Your task to perform on an android device: Add razer blade to the cart on newegg Image 0: 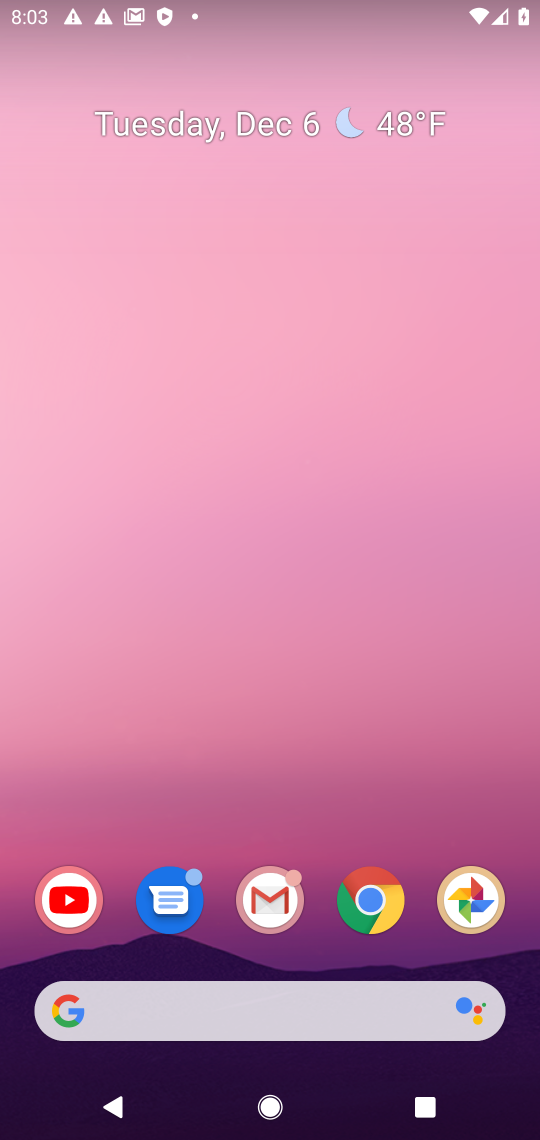
Step 0: drag from (246, 436) to (258, 207)
Your task to perform on an android device: Add razer blade to the cart on newegg Image 1: 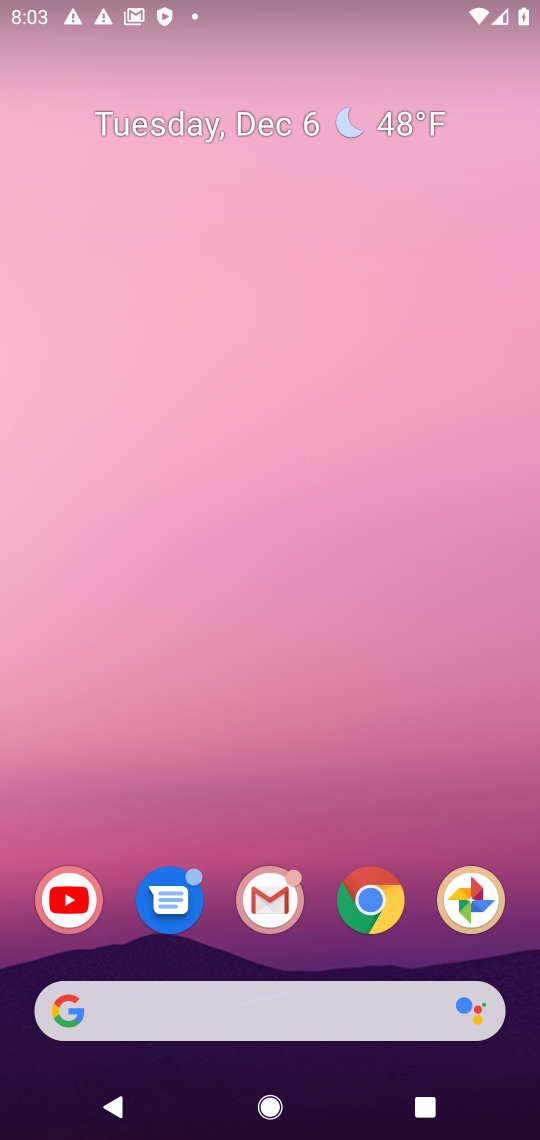
Step 1: drag from (242, 1004) to (302, 183)
Your task to perform on an android device: Add razer blade to the cart on newegg Image 2: 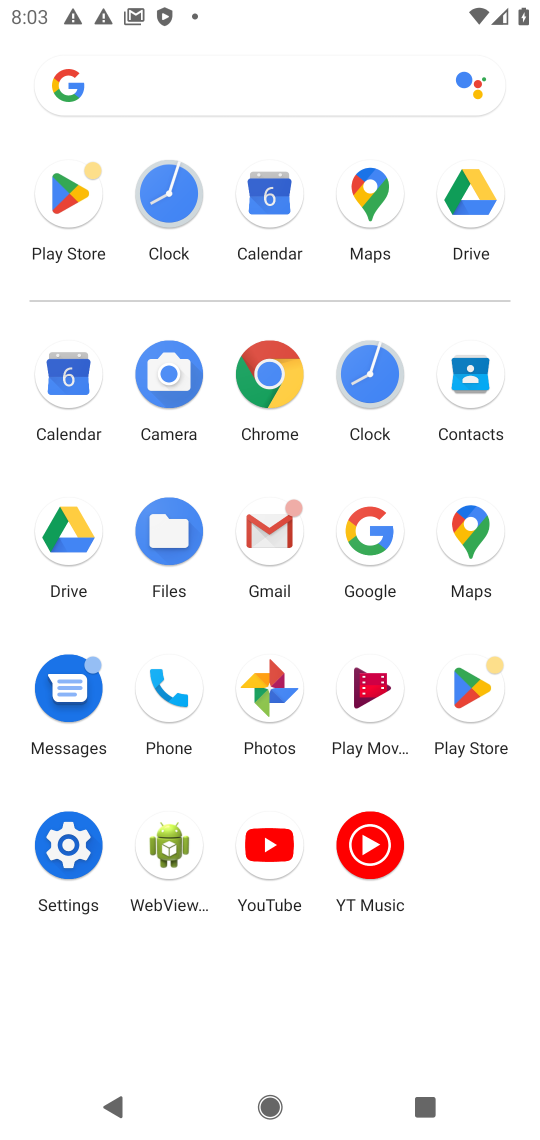
Step 2: click (362, 548)
Your task to perform on an android device: Add razer blade to the cart on newegg Image 3: 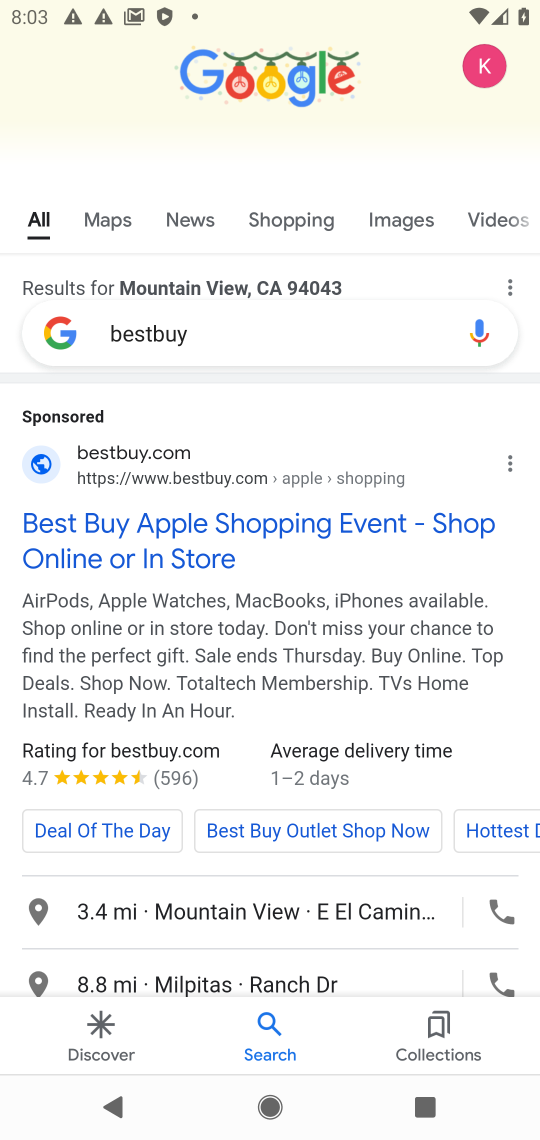
Step 3: click (180, 321)
Your task to perform on an android device: Add razer blade to the cart on newegg Image 4: 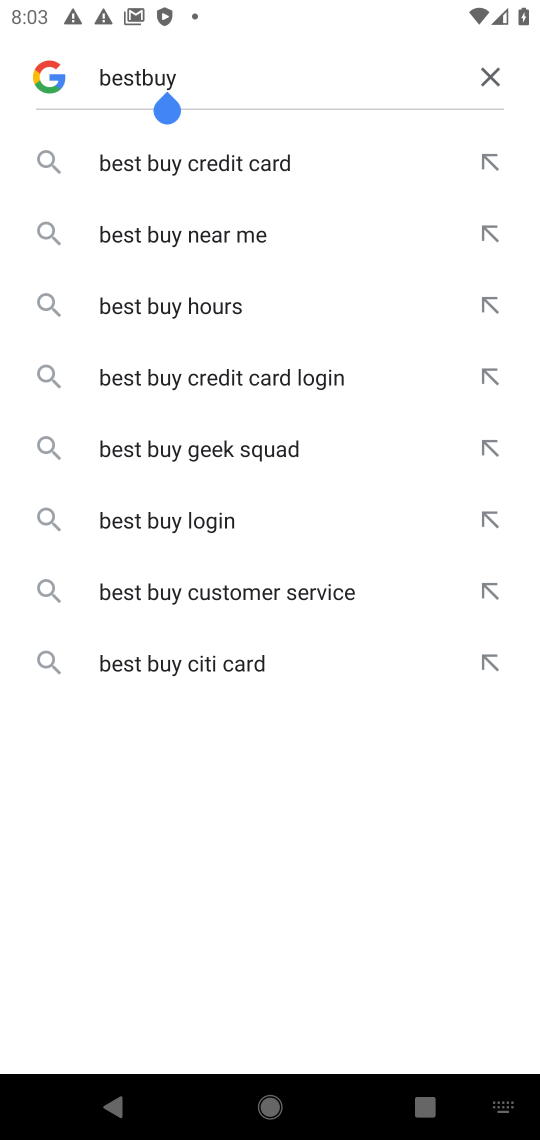
Step 4: click (492, 75)
Your task to perform on an android device: Add razer blade to the cart on newegg Image 5: 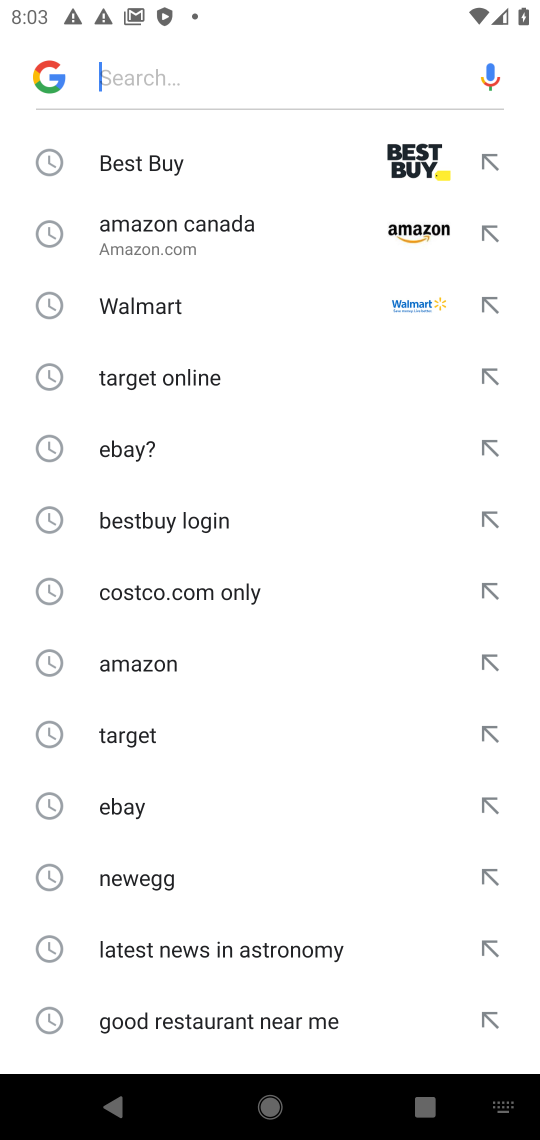
Step 5: click (493, 879)
Your task to perform on an android device: Add razer blade to the cart on newegg Image 6: 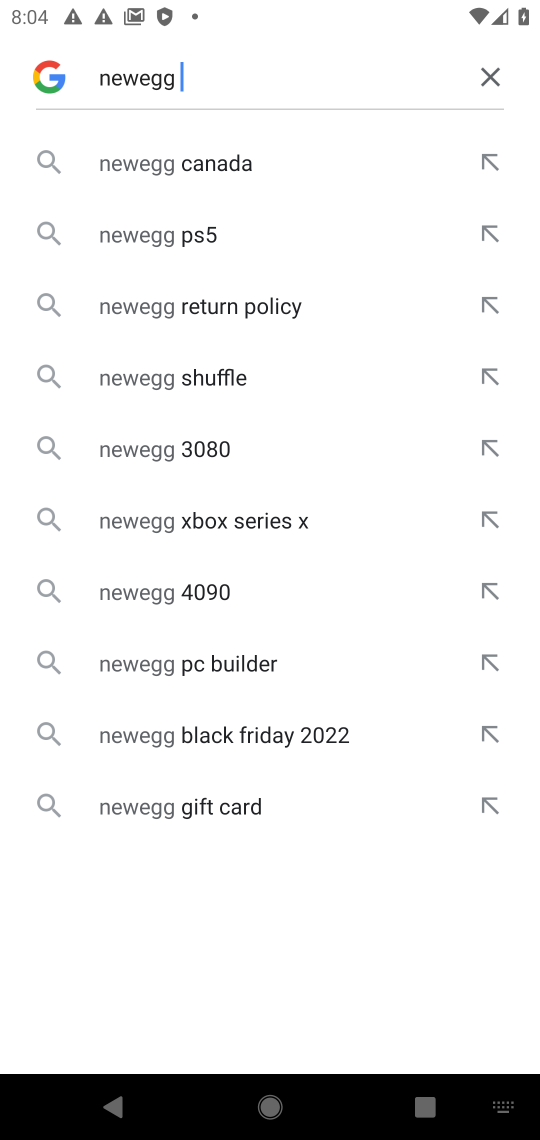
Step 6: click (141, 67)
Your task to perform on an android device: Add razer blade to the cart on newegg Image 7: 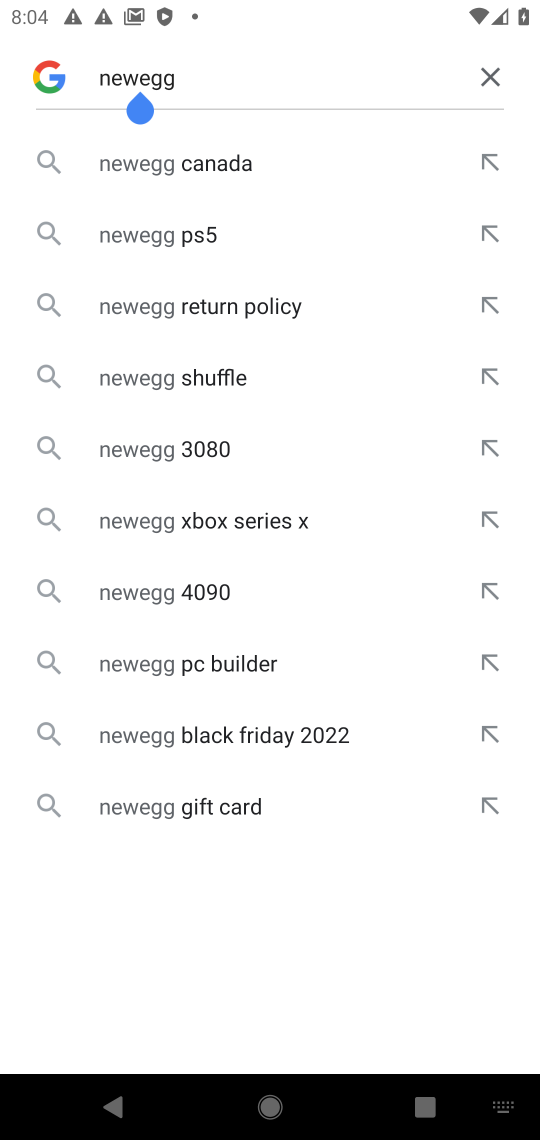
Step 7: click (488, 80)
Your task to perform on an android device: Add razer blade to the cart on newegg Image 8: 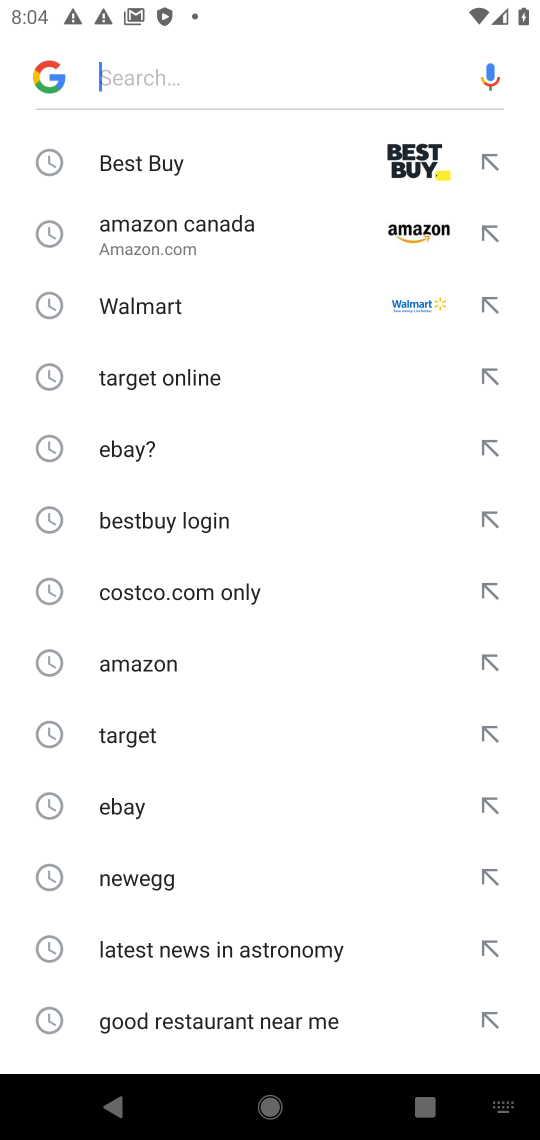
Step 8: click (131, 877)
Your task to perform on an android device: Add razer blade to the cart on newegg Image 9: 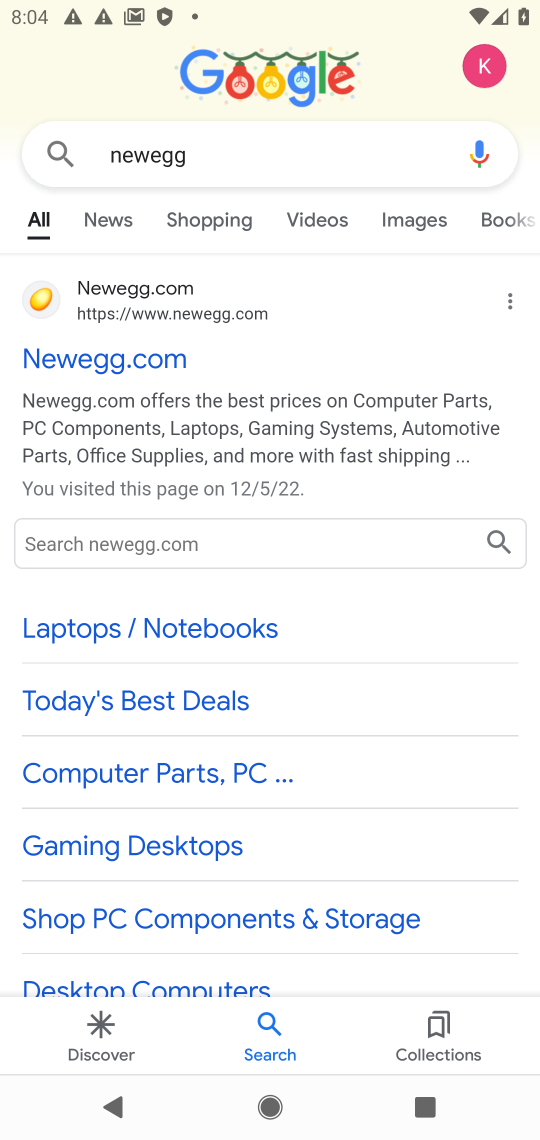
Step 9: click (117, 366)
Your task to perform on an android device: Add razer blade to the cart on newegg Image 10: 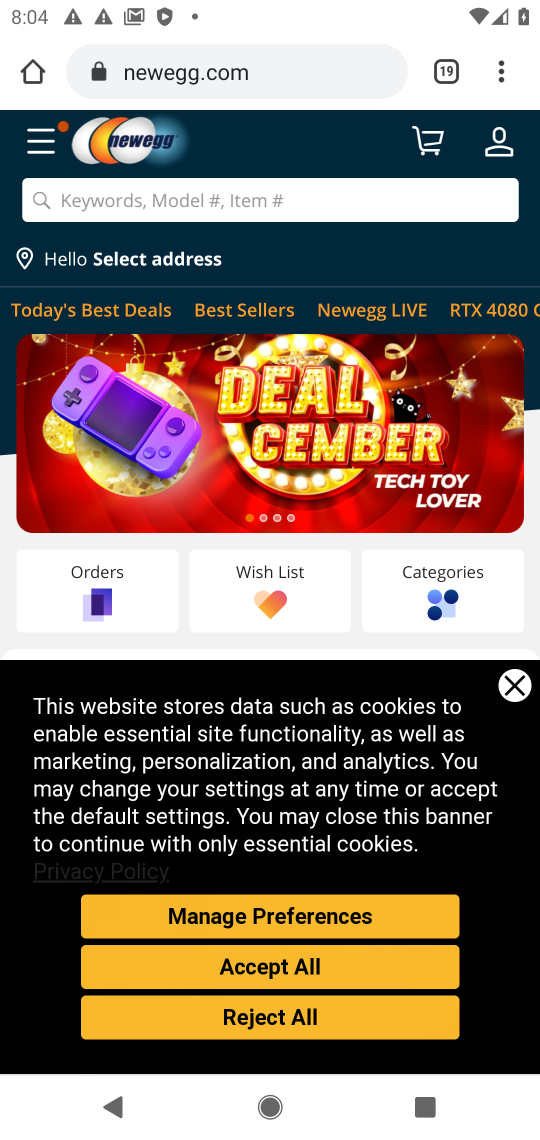
Step 10: click (179, 199)
Your task to perform on an android device: Add razer blade to the cart on newegg Image 11: 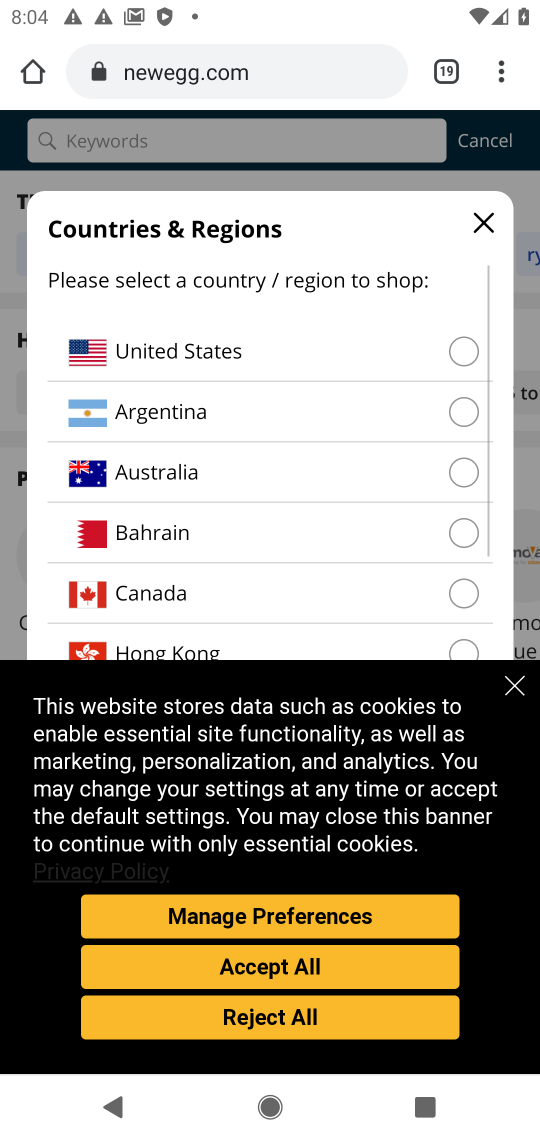
Step 11: click (476, 217)
Your task to perform on an android device: Add razer blade to the cart on newegg Image 12: 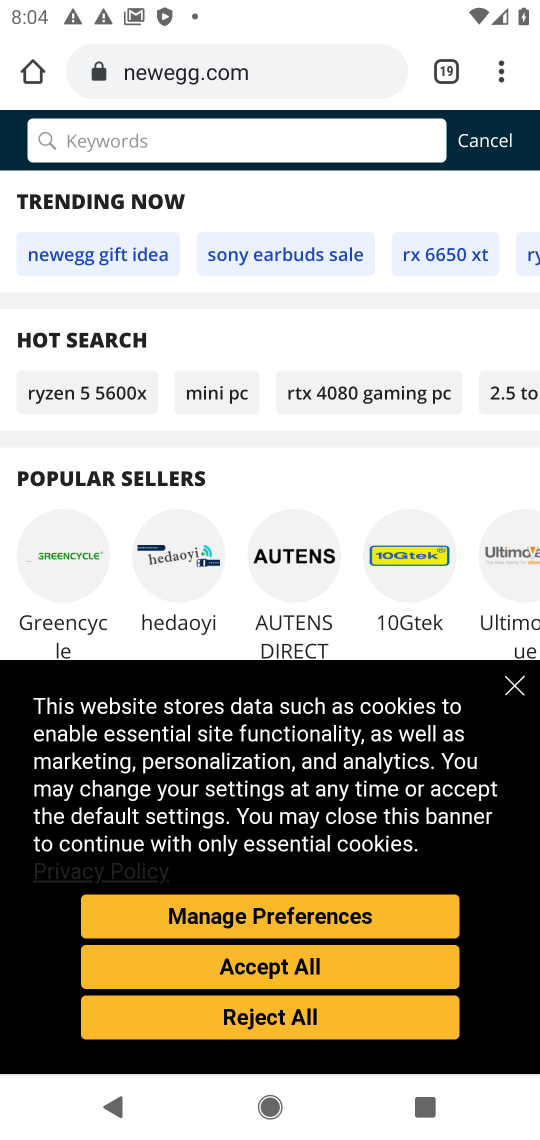
Step 12: type "razer blade"
Your task to perform on an android device: Add razer blade to the cart on newegg Image 13: 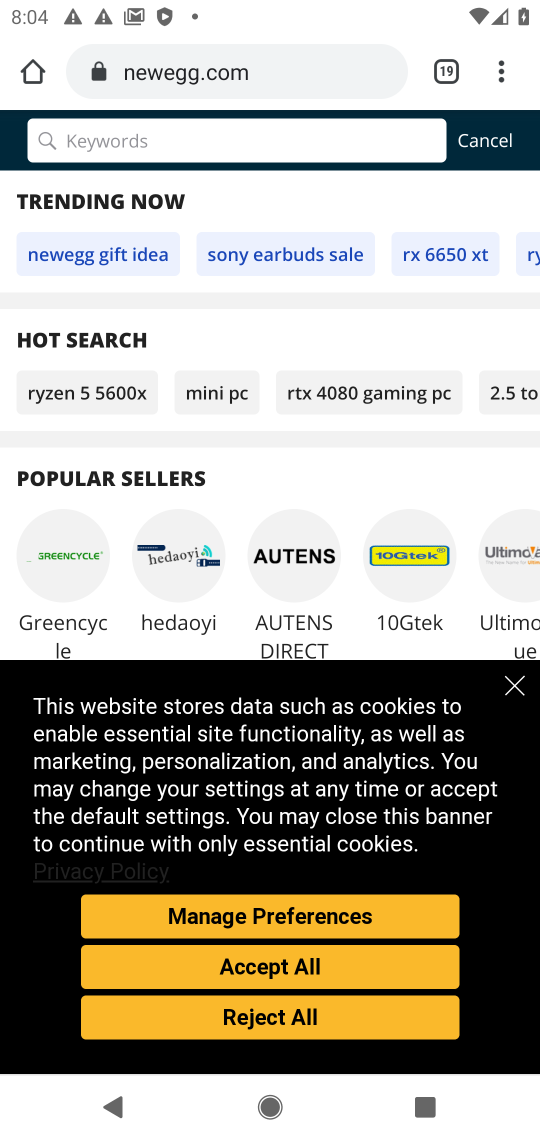
Step 13: click (108, 143)
Your task to perform on an android device: Add razer blade to the cart on newegg Image 14: 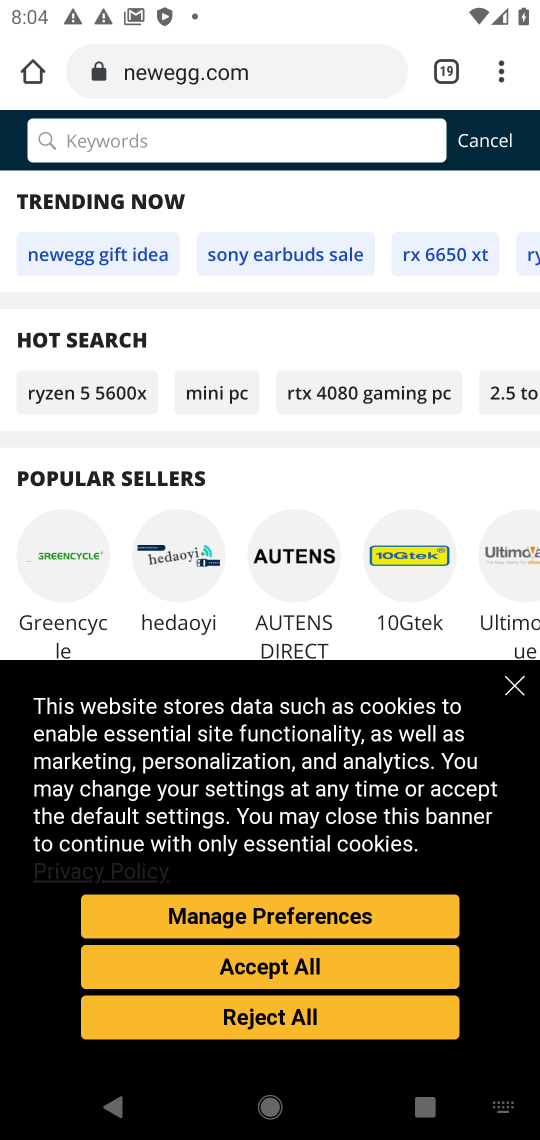
Step 14: type "razer blade"
Your task to perform on an android device: Add razer blade to the cart on newegg Image 15: 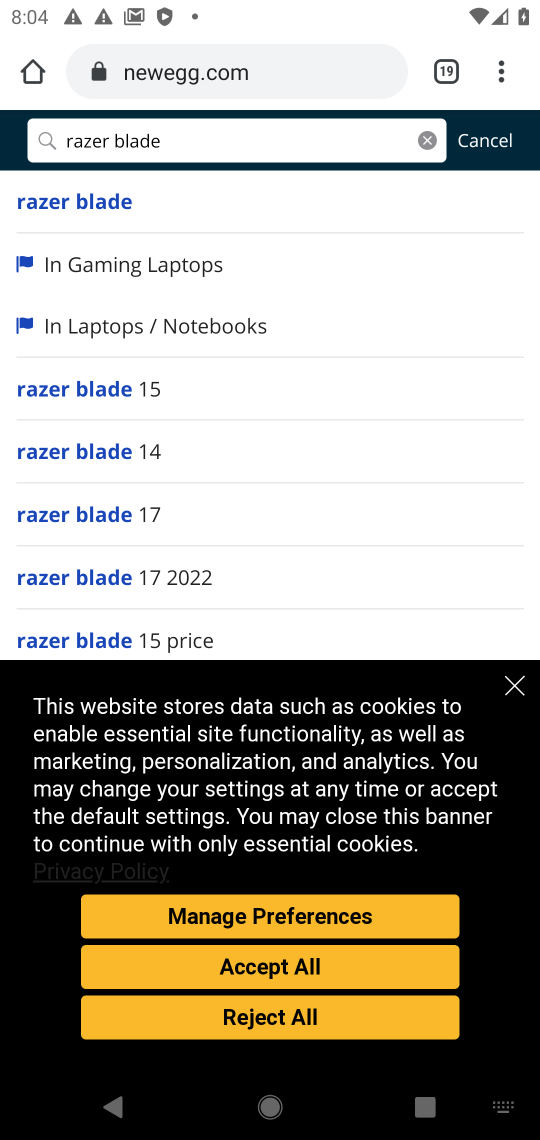
Step 15: click (86, 200)
Your task to perform on an android device: Add razer blade to the cart on newegg Image 16: 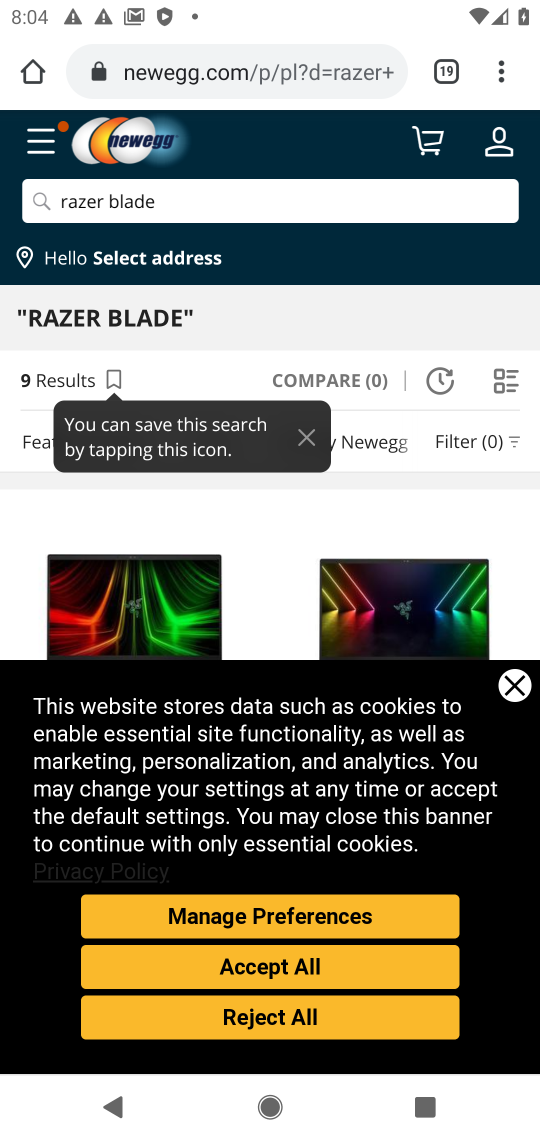
Step 16: click (517, 685)
Your task to perform on an android device: Add razer blade to the cart on newegg Image 17: 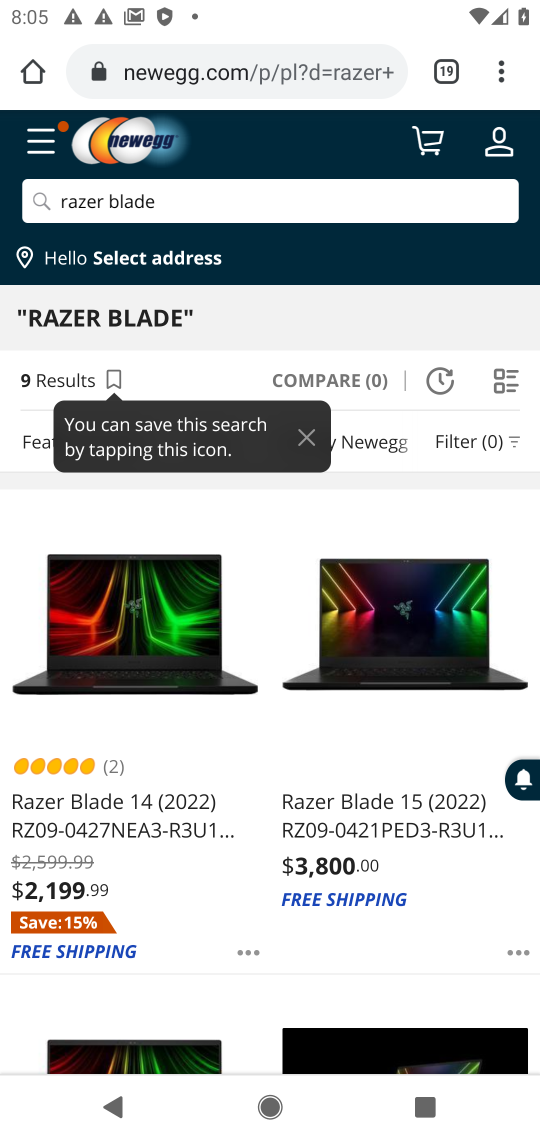
Step 17: click (104, 825)
Your task to perform on an android device: Add razer blade to the cart on newegg Image 18: 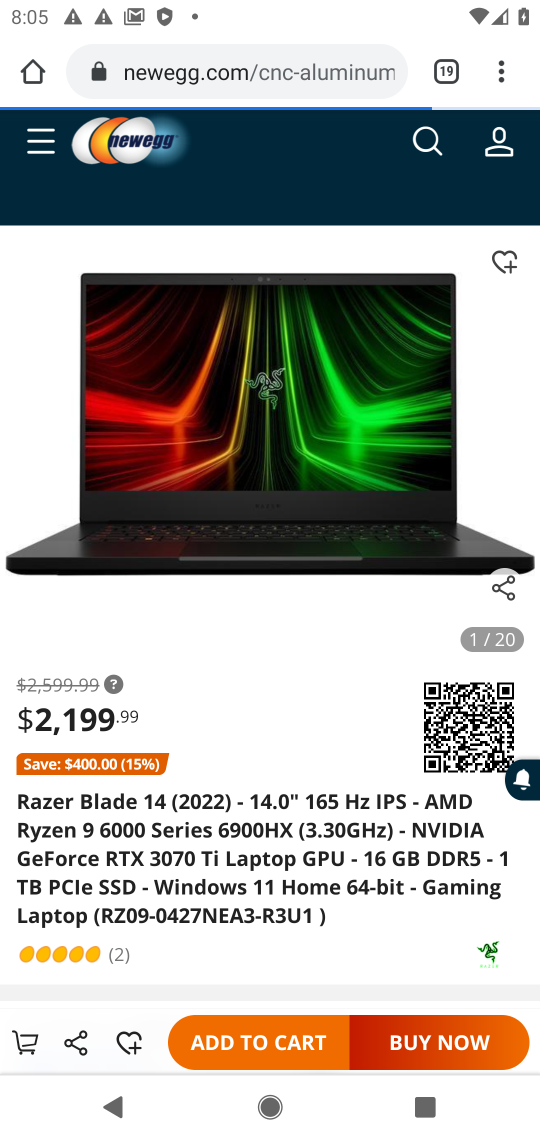
Step 18: click (247, 1040)
Your task to perform on an android device: Add razer blade to the cart on newegg Image 19: 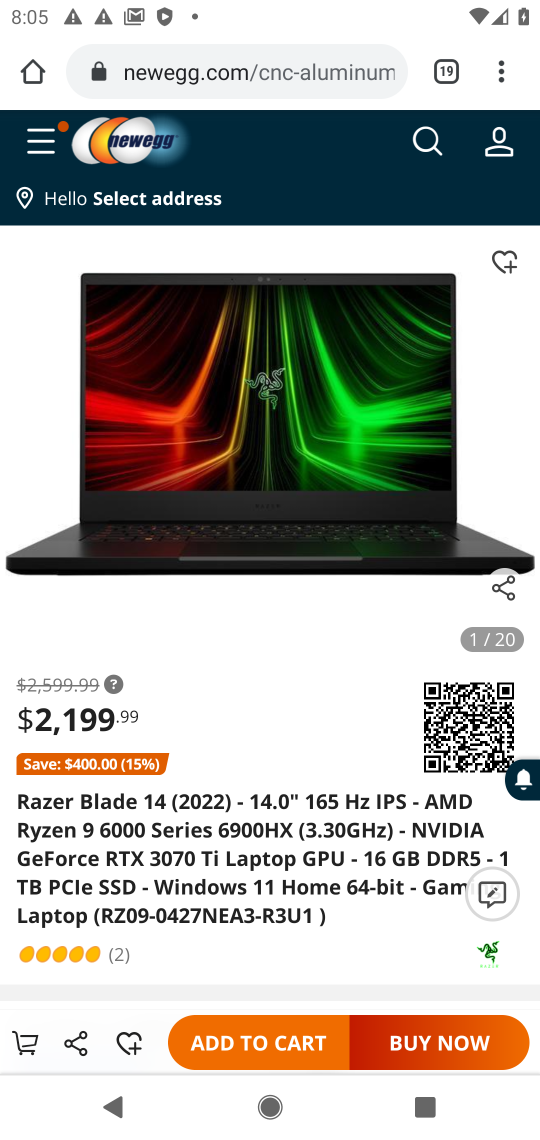
Step 19: drag from (208, 490) to (208, 854)
Your task to perform on an android device: Add razer blade to the cart on newegg Image 20: 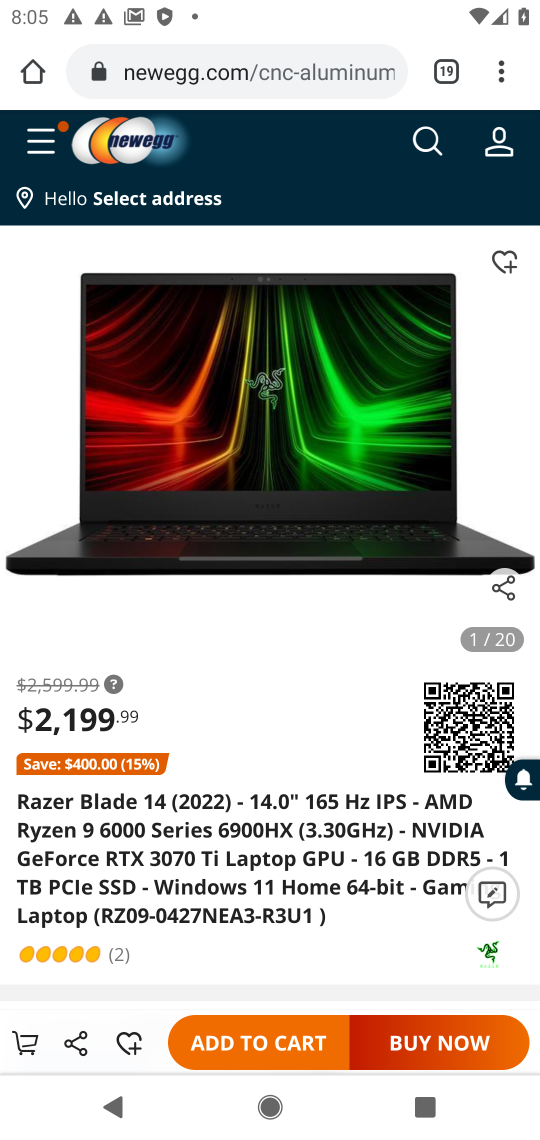
Step 20: click (223, 1034)
Your task to perform on an android device: Add razer blade to the cart on newegg Image 21: 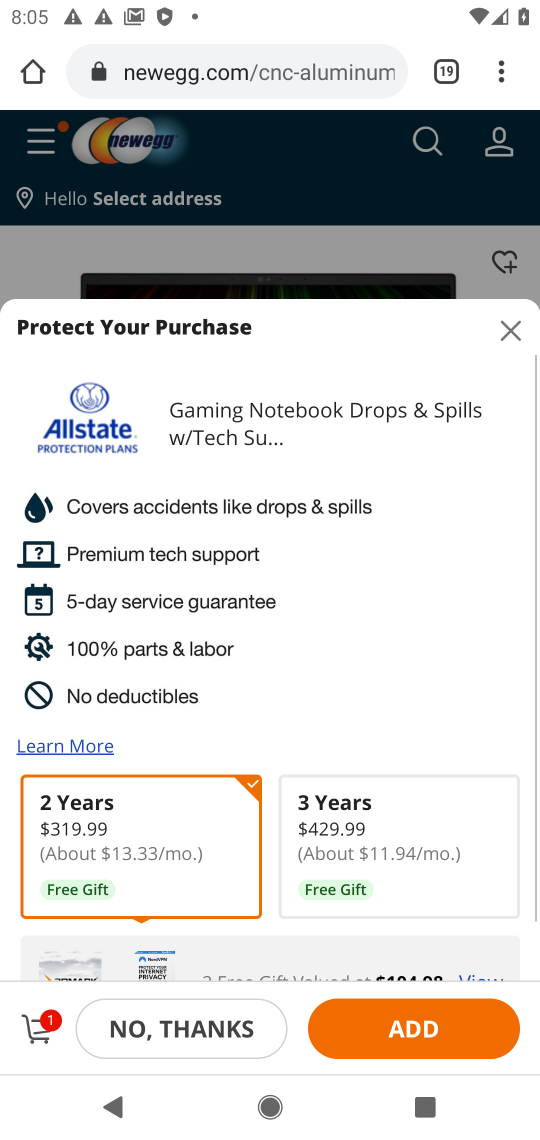
Step 21: task complete